Your task to perform on an android device: turn on showing notifications on the lock screen Image 0: 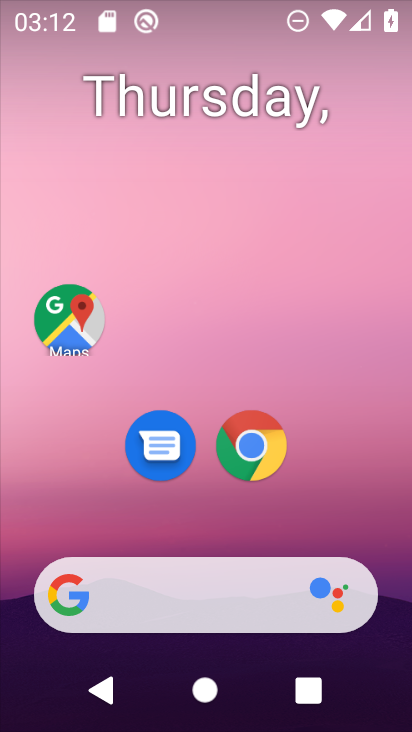
Step 0: drag from (356, 555) to (363, 21)
Your task to perform on an android device: turn on showing notifications on the lock screen Image 1: 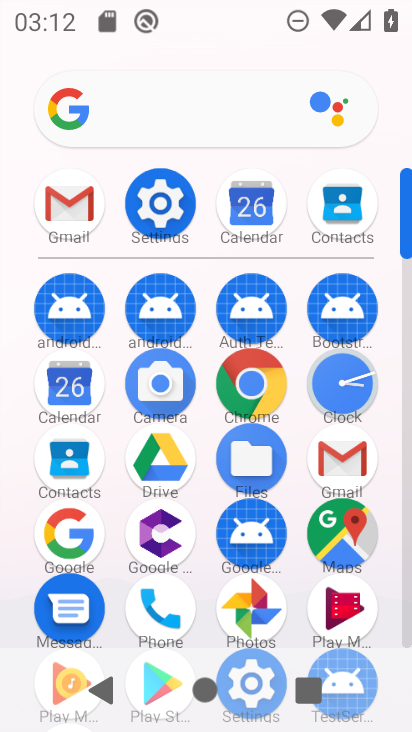
Step 1: click (150, 203)
Your task to perform on an android device: turn on showing notifications on the lock screen Image 2: 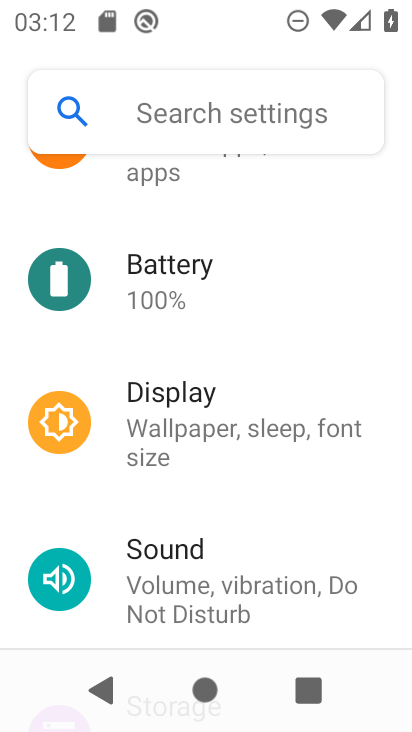
Step 2: drag from (291, 328) to (289, 568)
Your task to perform on an android device: turn on showing notifications on the lock screen Image 3: 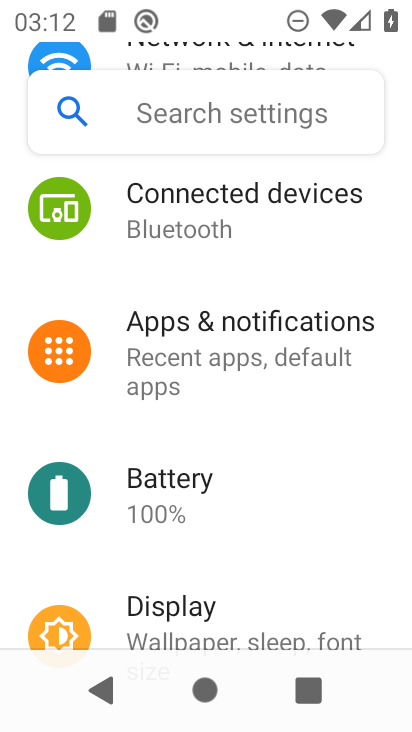
Step 3: click (240, 342)
Your task to perform on an android device: turn on showing notifications on the lock screen Image 4: 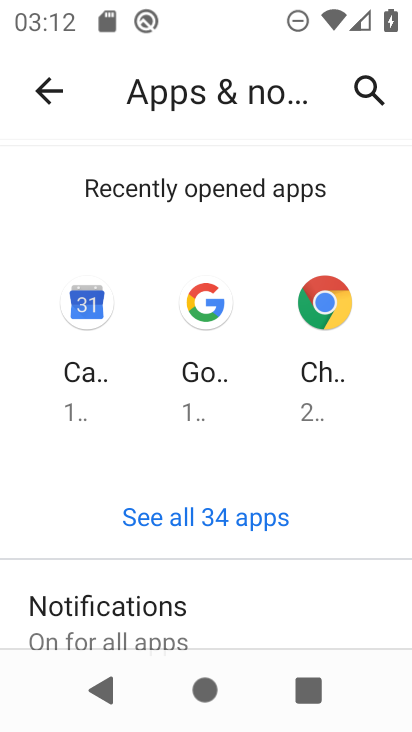
Step 4: drag from (288, 364) to (269, 208)
Your task to perform on an android device: turn on showing notifications on the lock screen Image 5: 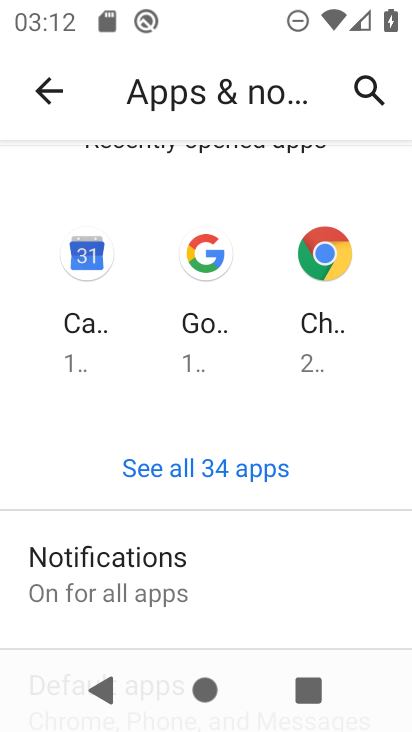
Step 5: drag from (223, 529) to (226, 283)
Your task to perform on an android device: turn on showing notifications on the lock screen Image 6: 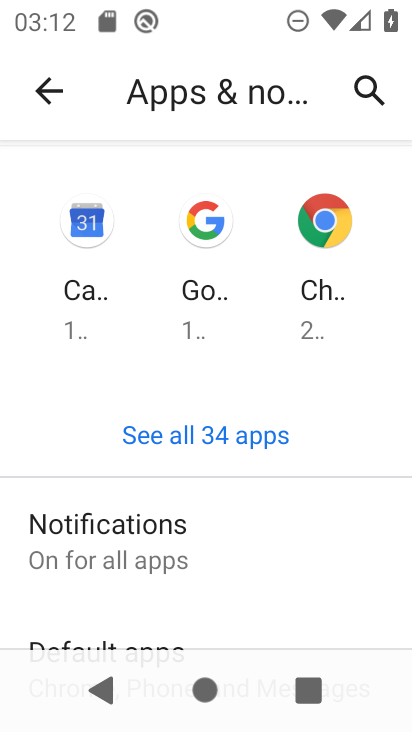
Step 6: click (102, 523)
Your task to perform on an android device: turn on showing notifications on the lock screen Image 7: 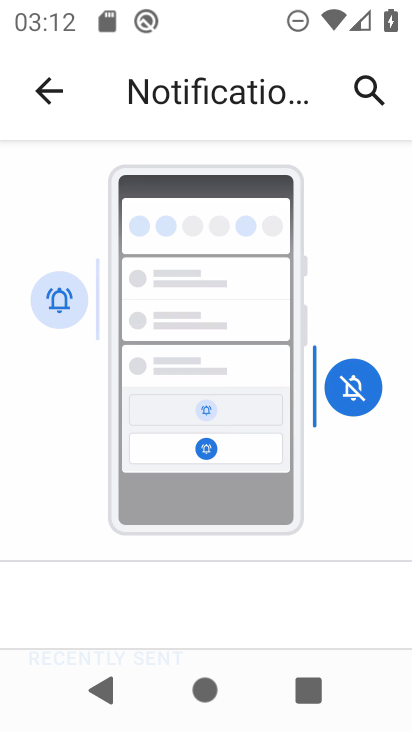
Step 7: drag from (183, 575) to (202, 210)
Your task to perform on an android device: turn on showing notifications on the lock screen Image 8: 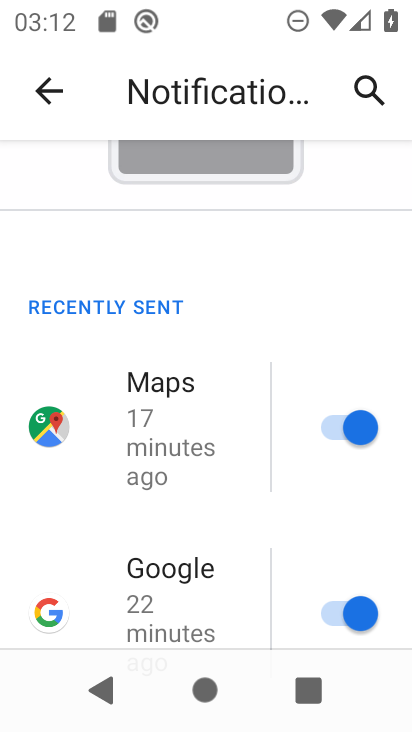
Step 8: drag from (199, 523) to (199, 189)
Your task to perform on an android device: turn on showing notifications on the lock screen Image 9: 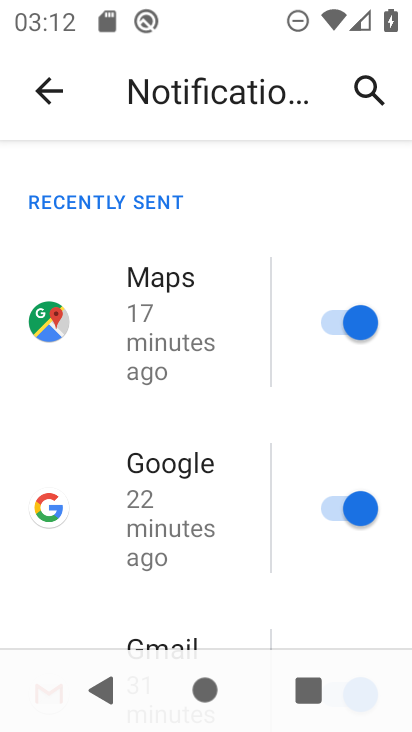
Step 9: drag from (191, 451) to (187, 179)
Your task to perform on an android device: turn on showing notifications on the lock screen Image 10: 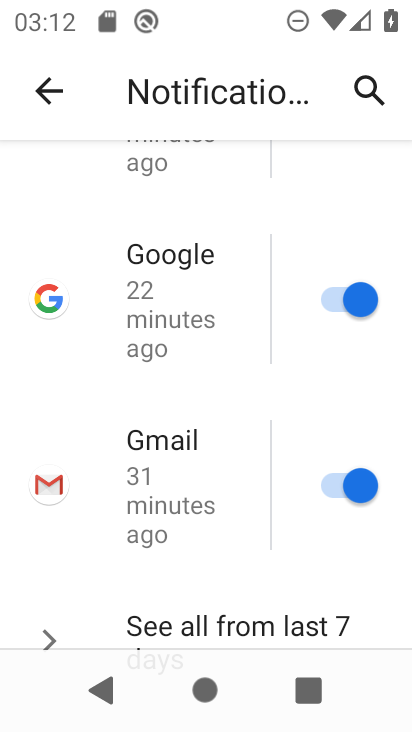
Step 10: drag from (176, 552) to (188, 195)
Your task to perform on an android device: turn on showing notifications on the lock screen Image 11: 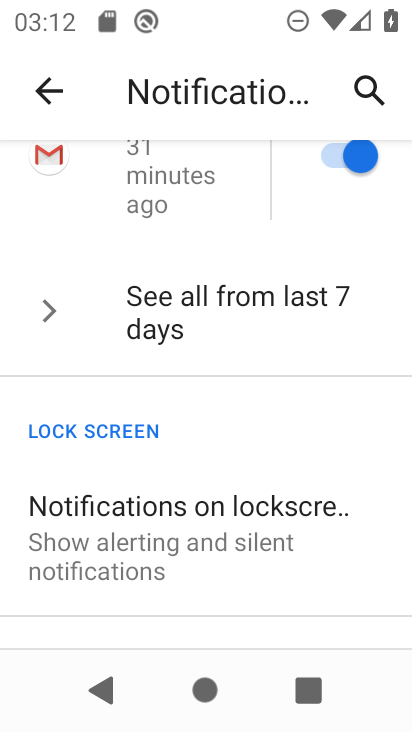
Step 11: click (123, 542)
Your task to perform on an android device: turn on showing notifications on the lock screen Image 12: 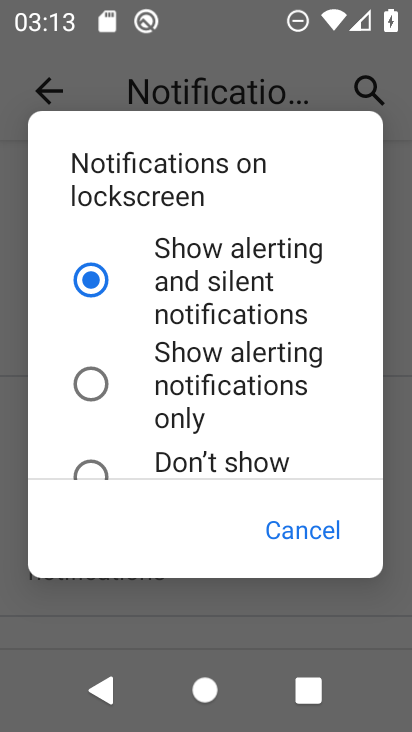
Step 12: task complete